Your task to perform on an android device: What's on my calendar today? Image 0: 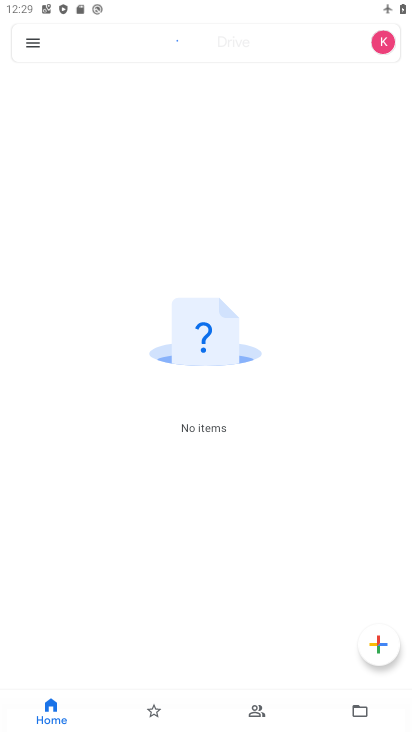
Step 0: press home button
Your task to perform on an android device: What's on my calendar today? Image 1: 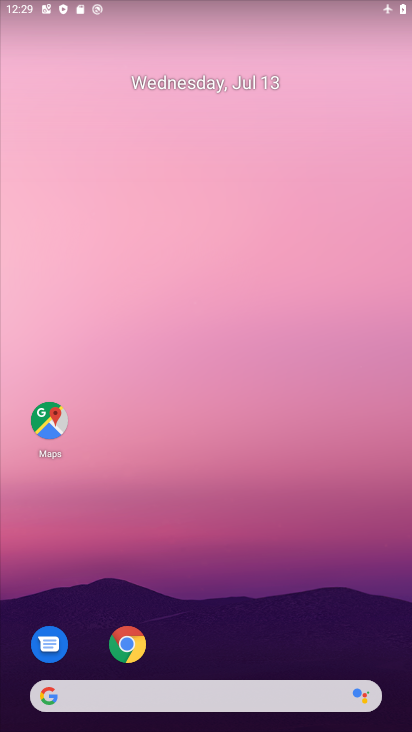
Step 1: drag from (315, 564) to (238, 25)
Your task to perform on an android device: What's on my calendar today? Image 2: 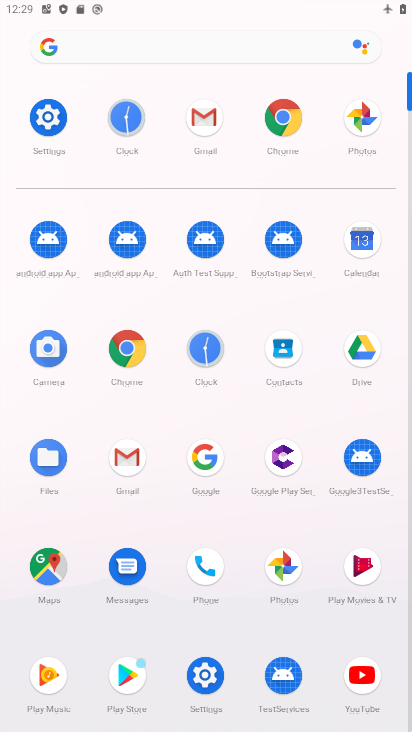
Step 2: click (369, 238)
Your task to perform on an android device: What's on my calendar today? Image 3: 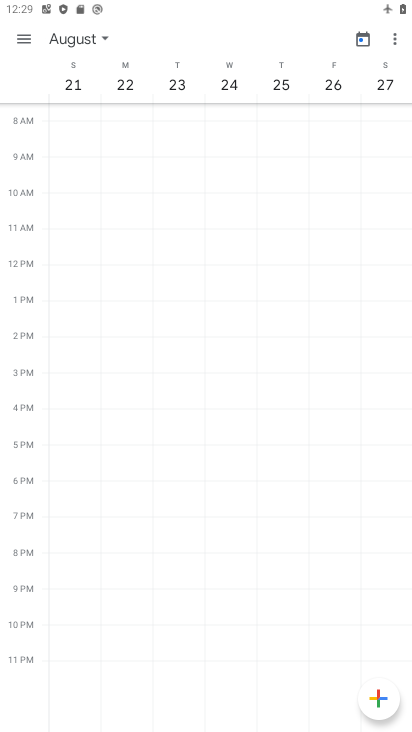
Step 3: click (64, 32)
Your task to perform on an android device: What's on my calendar today? Image 4: 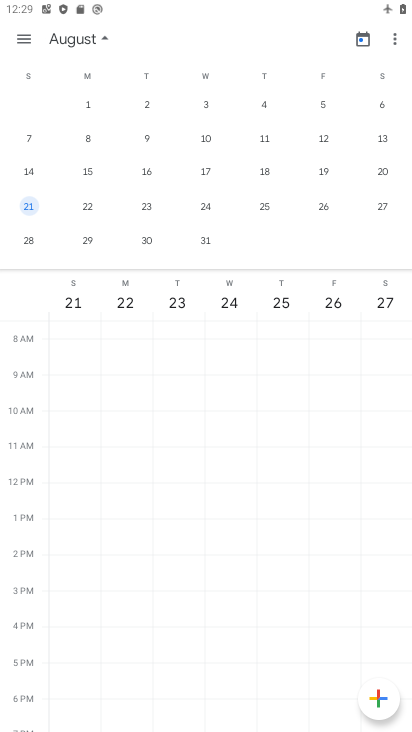
Step 4: drag from (32, 166) to (338, 149)
Your task to perform on an android device: What's on my calendar today? Image 5: 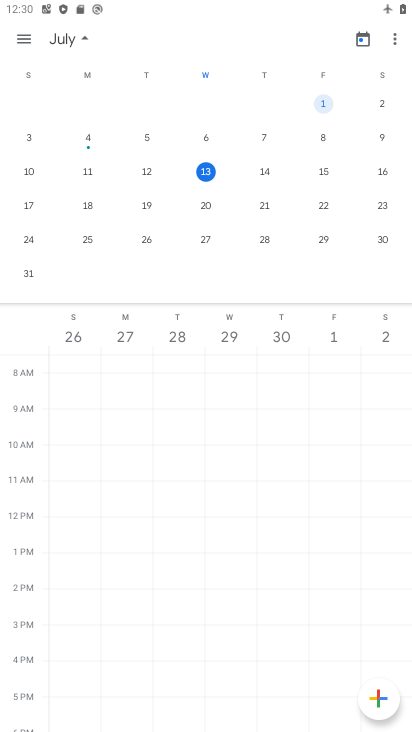
Step 5: click (203, 169)
Your task to perform on an android device: What's on my calendar today? Image 6: 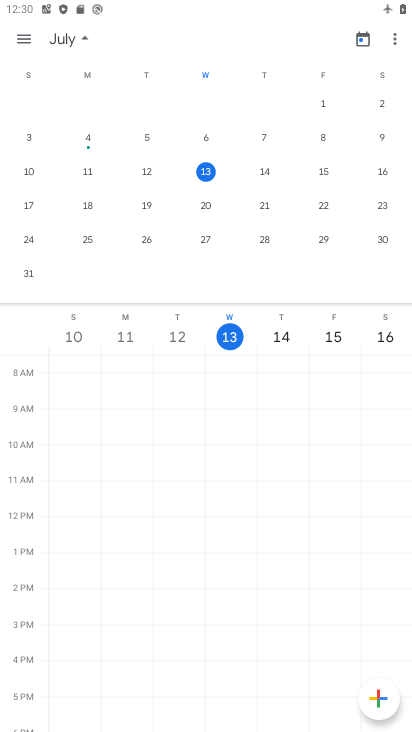
Step 6: click (203, 169)
Your task to perform on an android device: What's on my calendar today? Image 7: 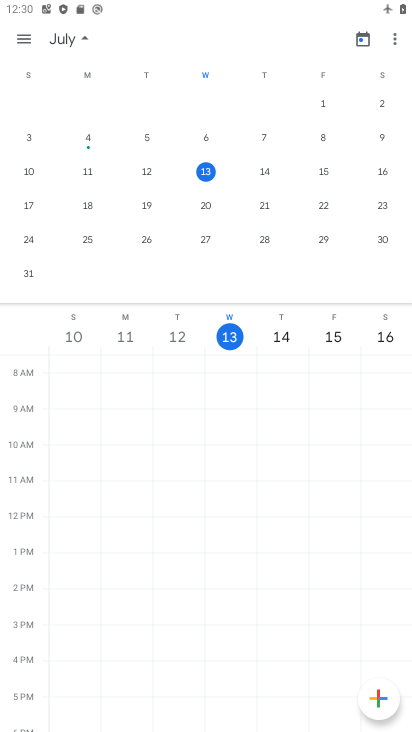
Step 7: click (240, 333)
Your task to perform on an android device: What's on my calendar today? Image 8: 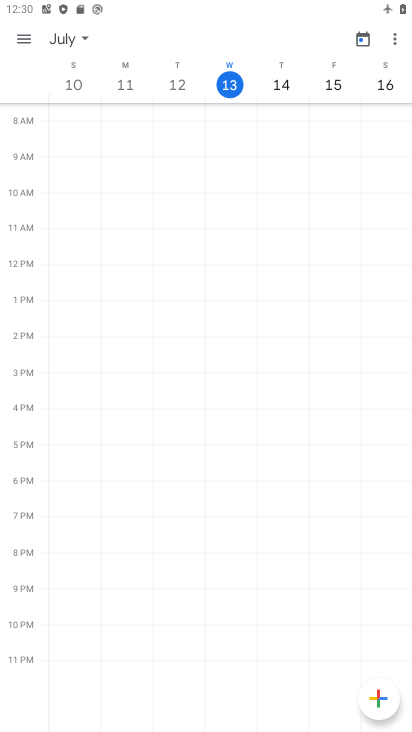
Step 8: click (241, 327)
Your task to perform on an android device: What's on my calendar today? Image 9: 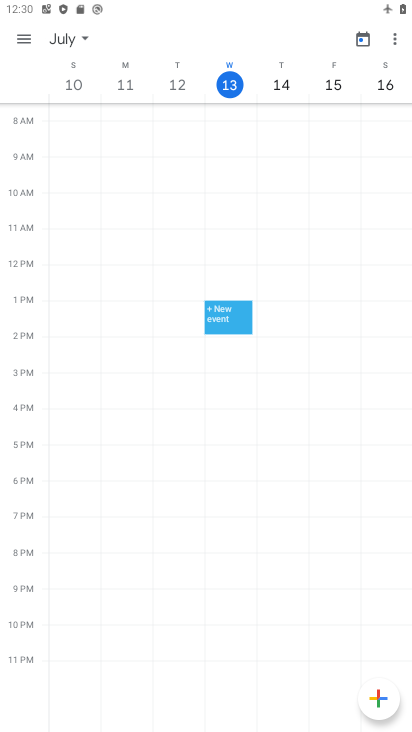
Step 9: click (234, 77)
Your task to perform on an android device: What's on my calendar today? Image 10: 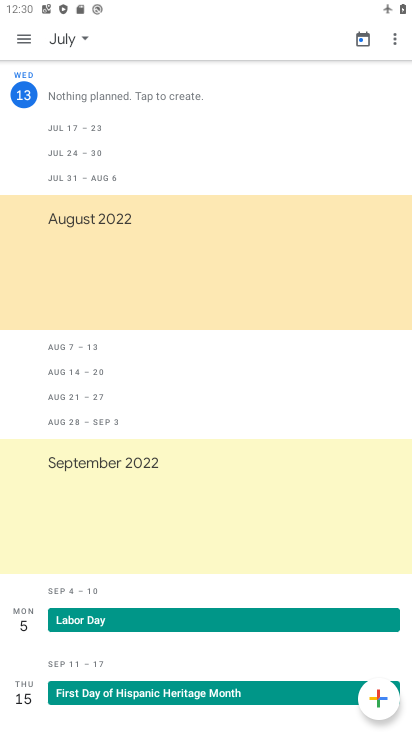
Step 10: task complete